Your task to perform on an android device: open wifi settings Image 0: 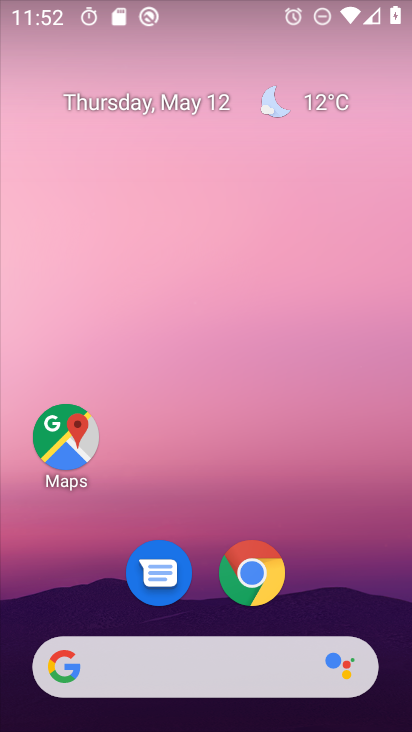
Step 0: drag from (400, 500) to (372, 182)
Your task to perform on an android device: open wifi settings Image 1: 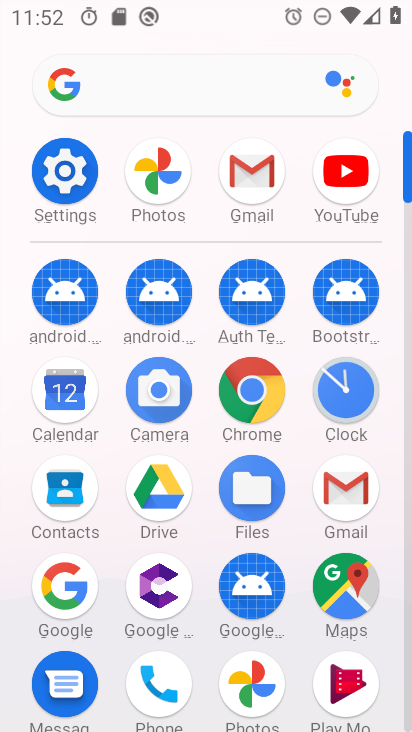
Step 1: click (61, 174)
Your task to perform on an android device: open wifi settings Image 2: 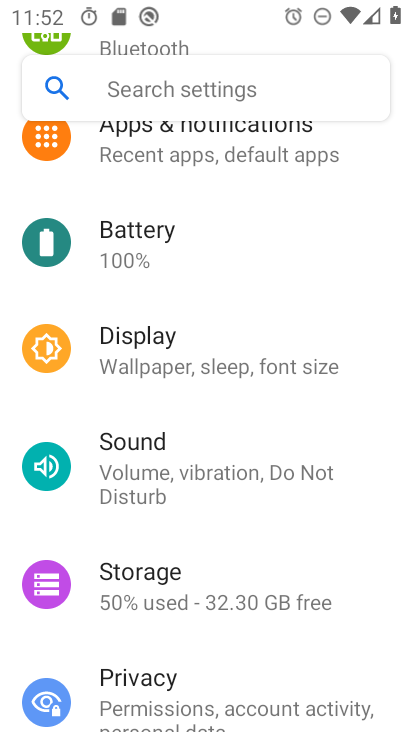
Step 2: drag from (263, 176) to (349, 598)
Your task to perform on an android device: open wifi settings Image 3: 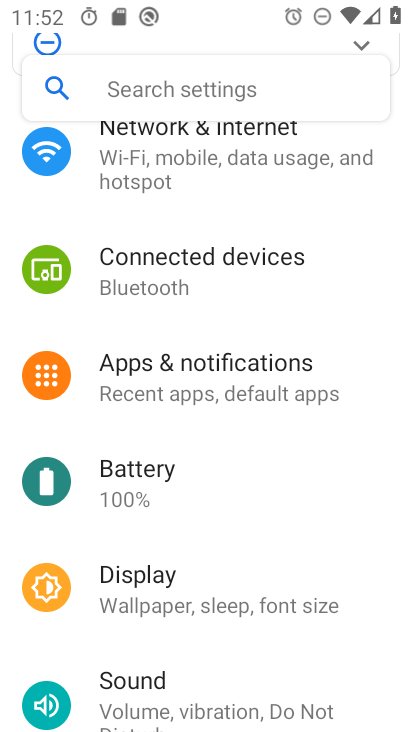
Step 3: drag from (356, 272) to (383, 567)
Your task to perform on an android device: open wifi settings Image 4: 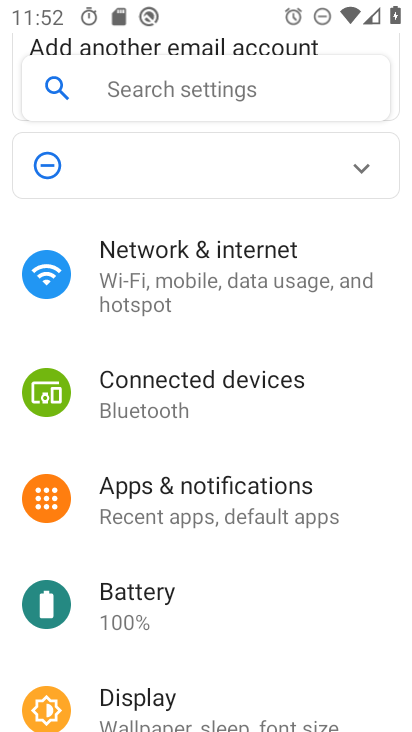
Step 4: drag from (375, 222) to (370, 588)
Your task to perform on an android device: open wifi settings Image 5: 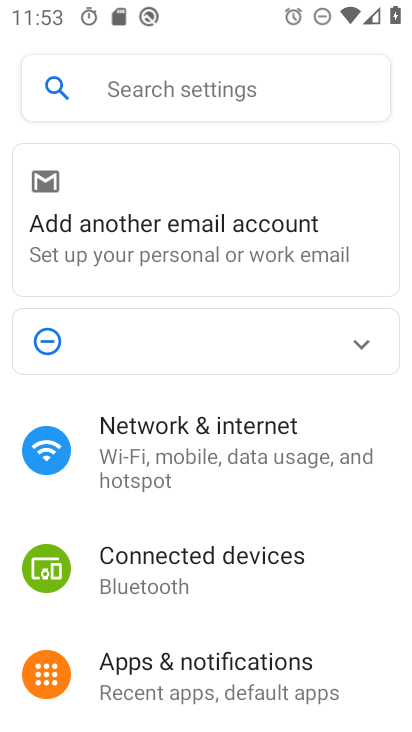
Step 5: click (173, 456)
Your task to perform on an android device: open wifi settings Image 6: 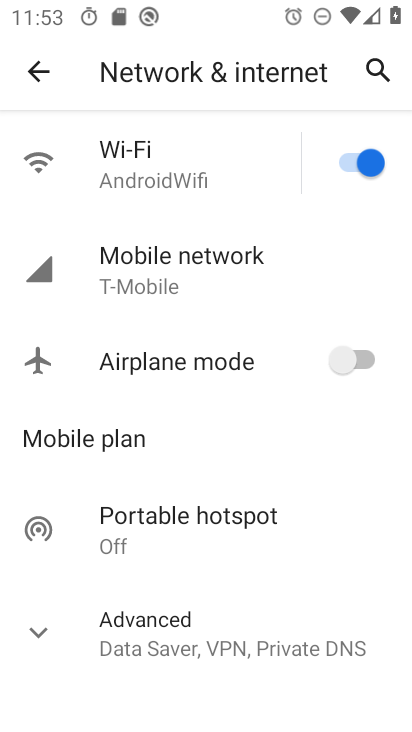
Step 6: click (159, 166)
Your task to perform on an android device: open wifi settings Image 7: 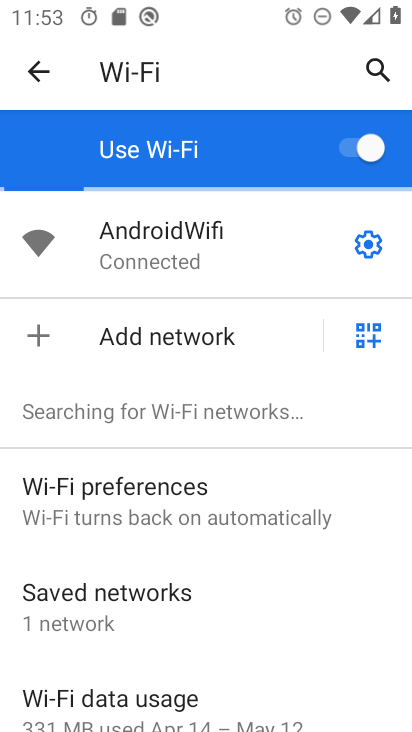
Step 7: click (361, 236)
Your task to perform on an android device: open wifi settings Image 8: 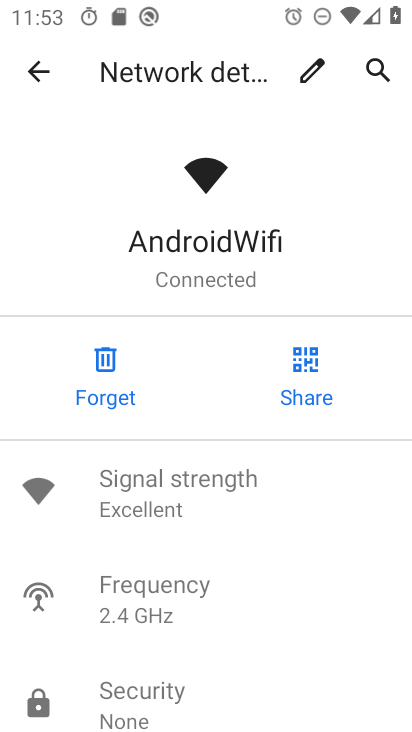
Step 8: task complete